Your task to perform on an android device: Search for "beats solo 3" on ebay, select the first entry, add it to the cart, then select checkout. Image 0: 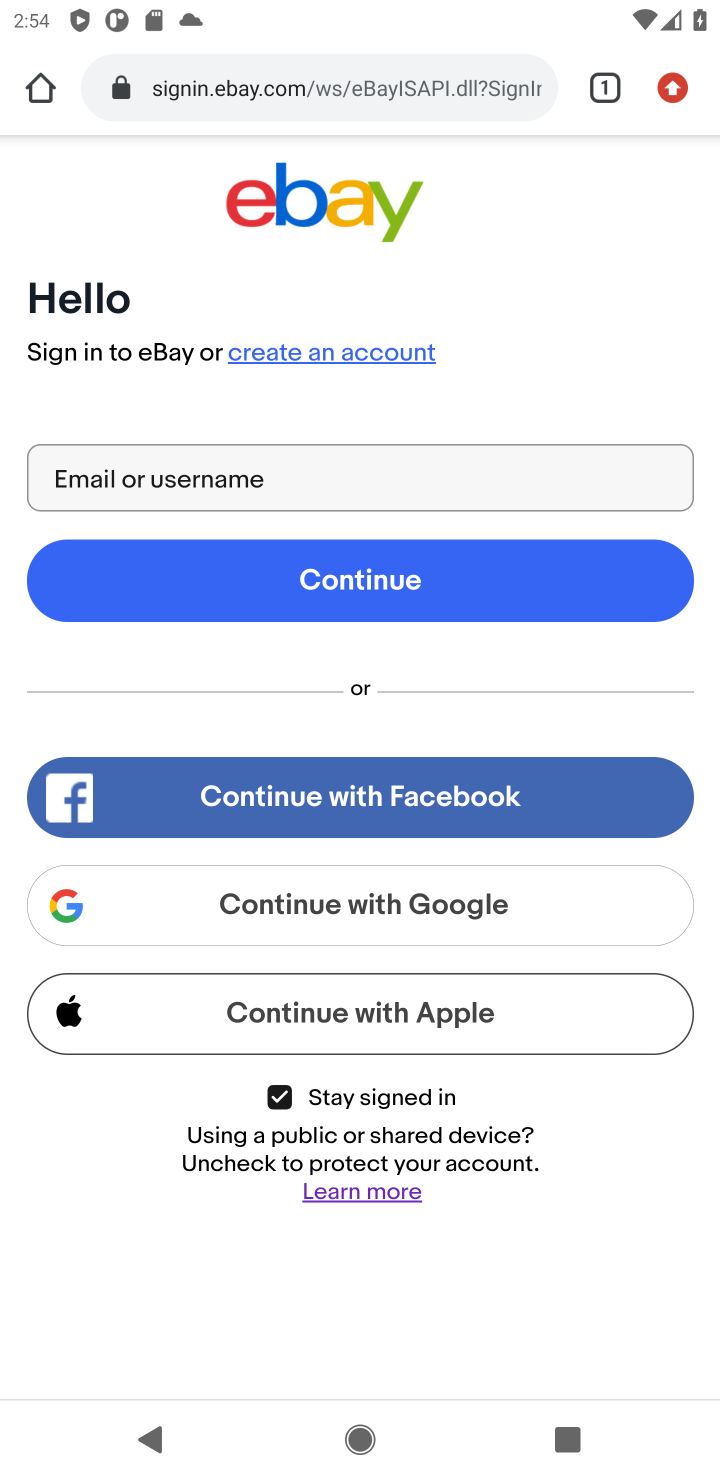
Step 0: press back button
Your task to perform on an android device: Search for "beats solo 3" on ebay, select the first entry, add it to the cart, then select checkout. Image 1: 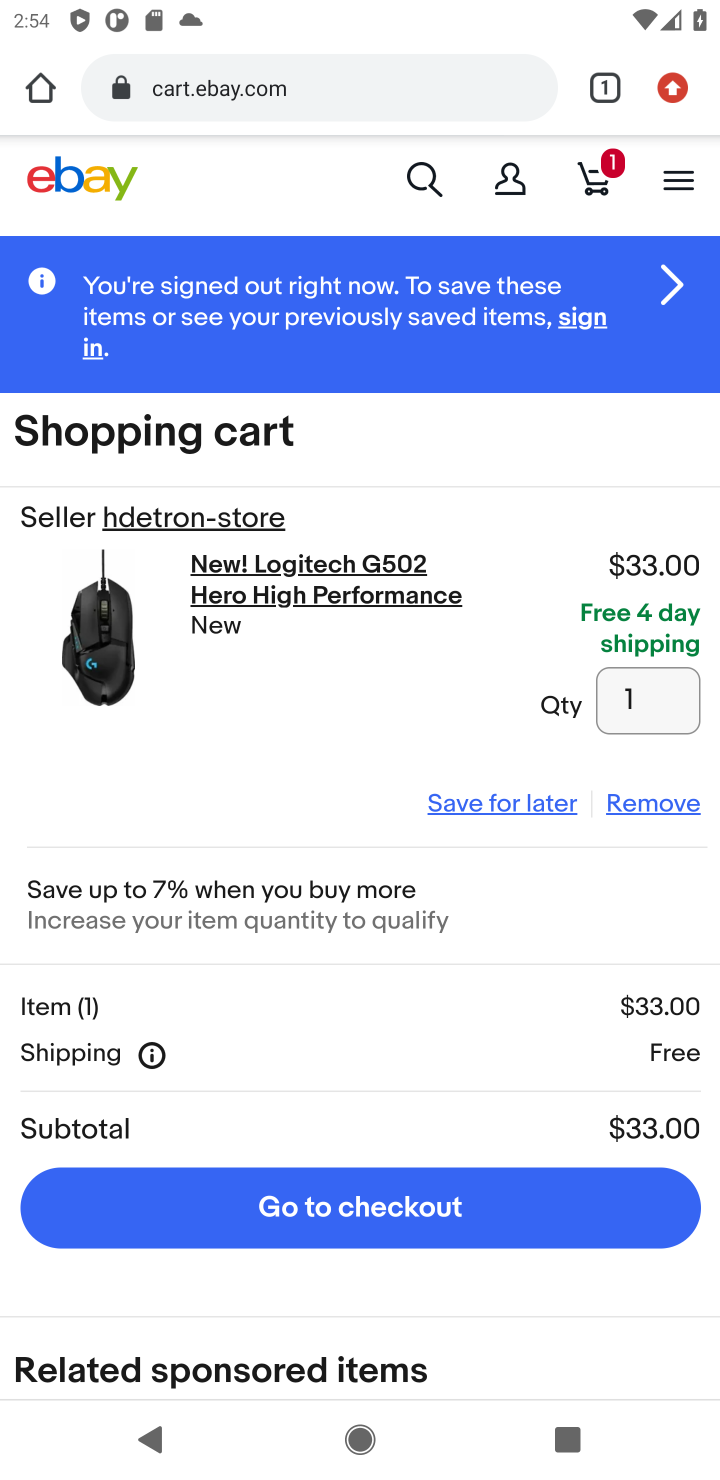
Step 1: click (428, 191)
Your task to perform on an android device: Search for "beats solo 3" on ebay, select the first entry, add it to the cart, then select checkout. Image 2: 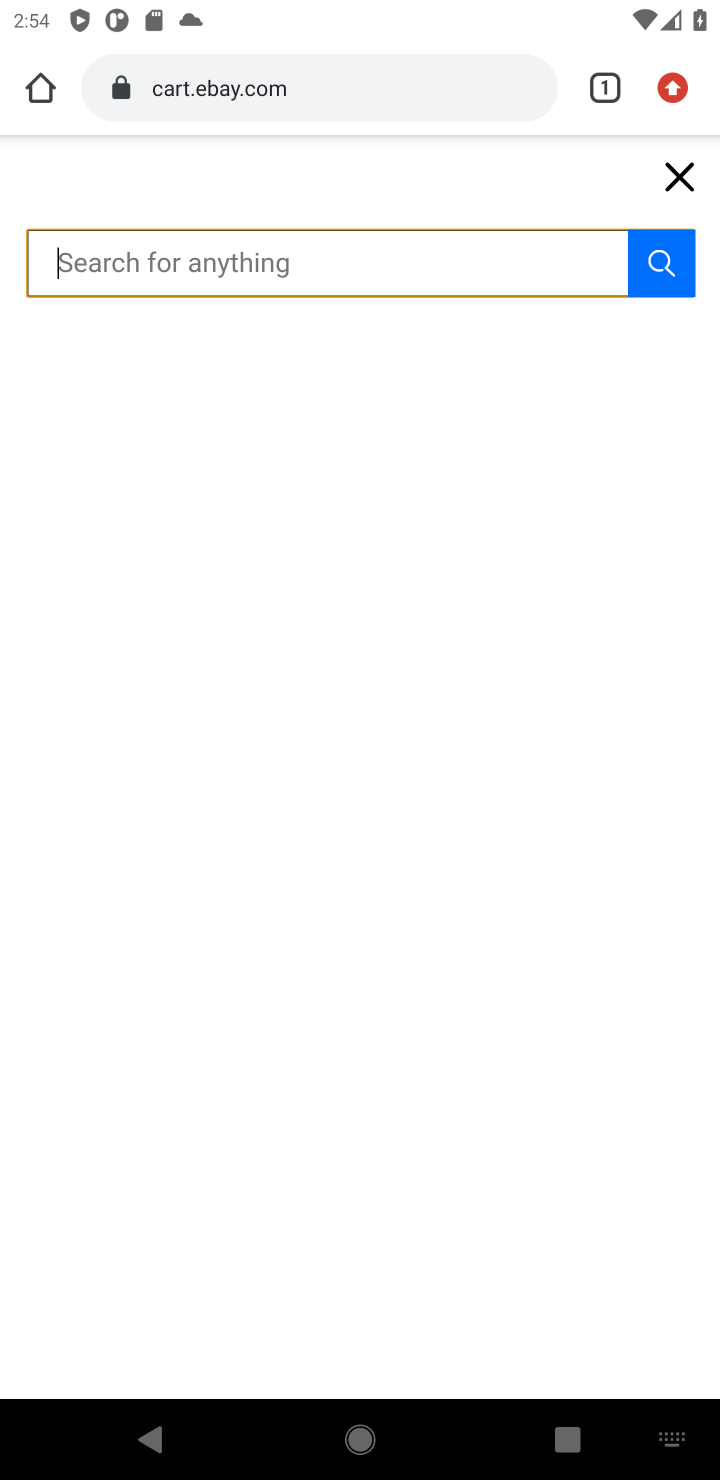
Step 2: type "beats solo 3"
Your task to perform on an android device: Search for "beats solo 3" on ebay, select the first entry, add it to the cart, then select checkout. Image 3: 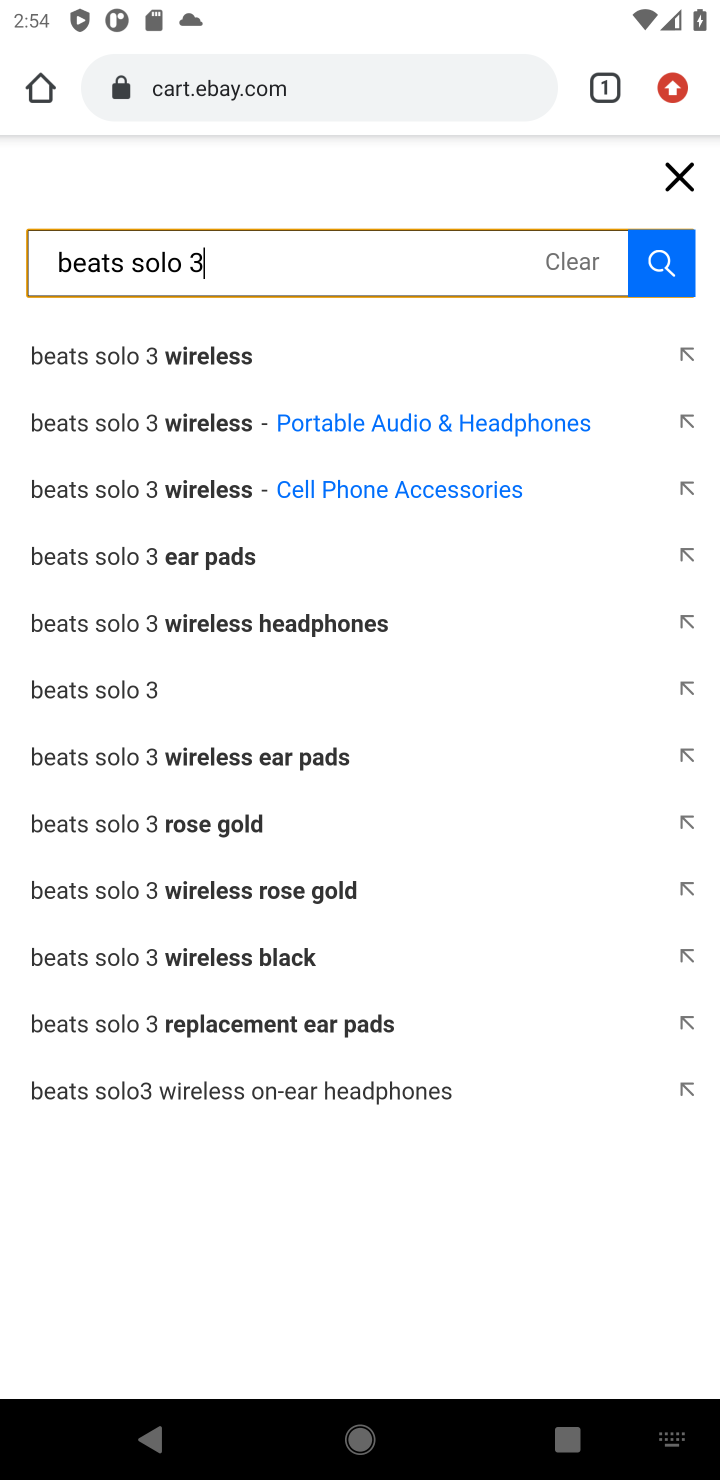
Step 3: click (658, 284)
Your task to perform on an android device: Search for "beats solo 3" on ebay, select the first entry, add it to the cart, then select checkout. Image 4: 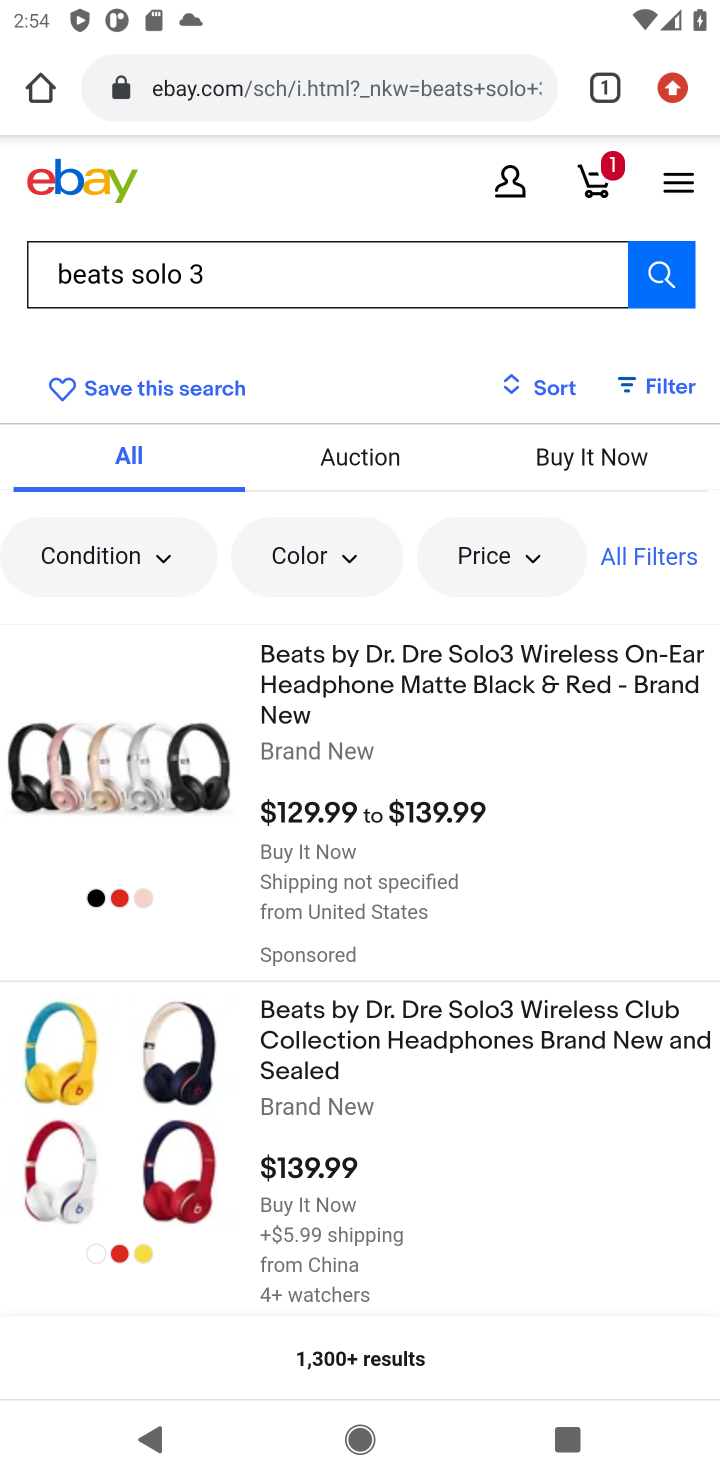
Step 4: click (408, 716)
Your task to perform on an android device: Search for "beats solo 3" on ebay, select the first entry, add it to the cart, then select checkout. Image 5: 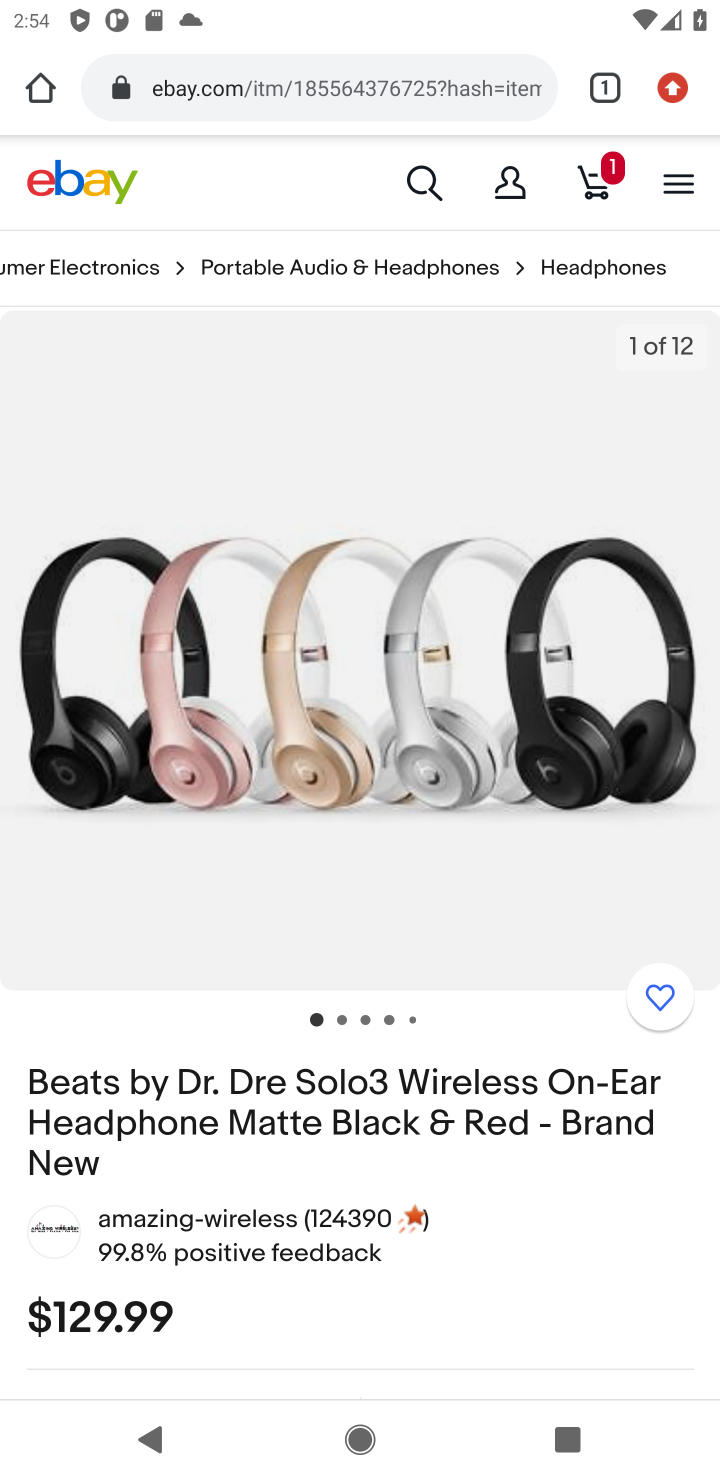
Step 5: drag from (521, 1251) to (617, 634)
Your task to perform on an android device: Search for "beats solo 3" on ebay, select the first entry, add it to the cart, then select checkout. Image 6: 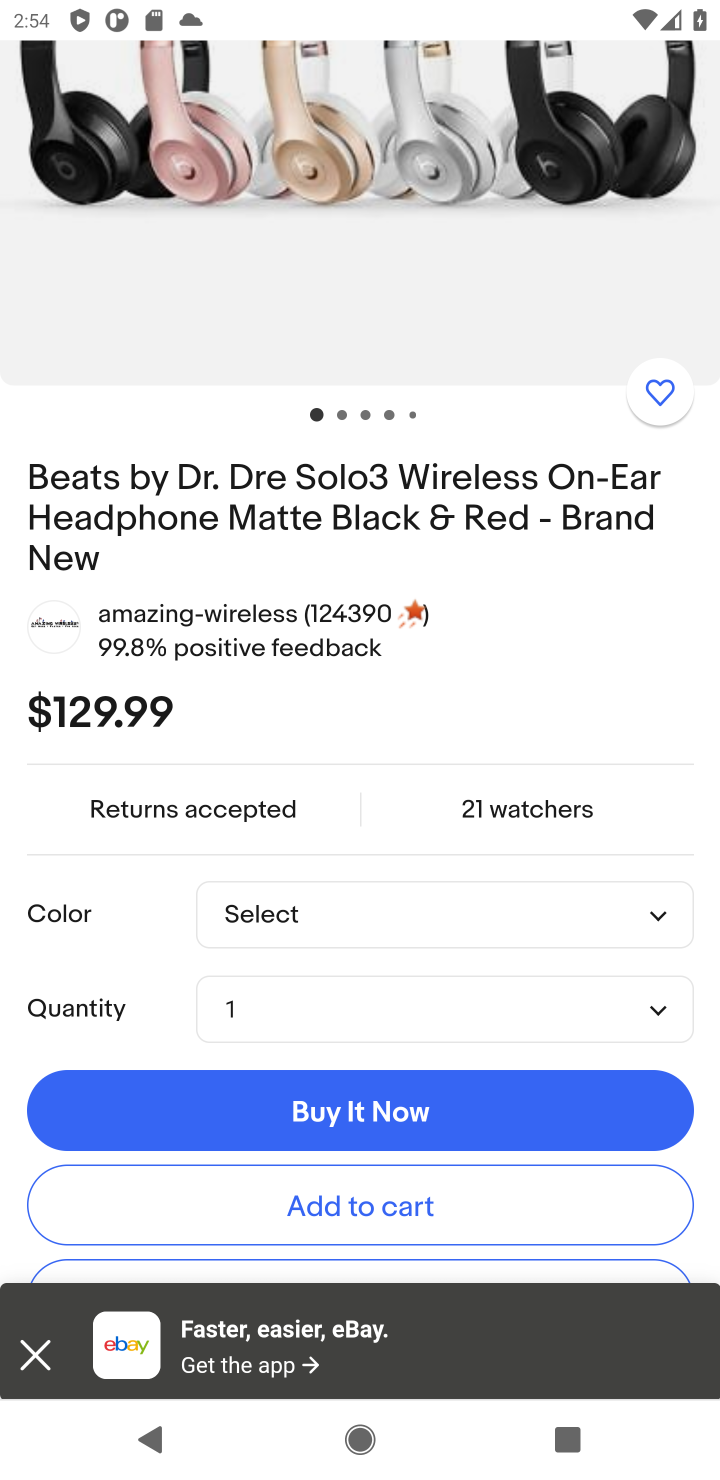
Step 6: click (392, 1221)
Your task to perform on an android device: Search for "beats solo 3" on ebay, select the first entry, add it to the cart, then select checkout. Image 7: 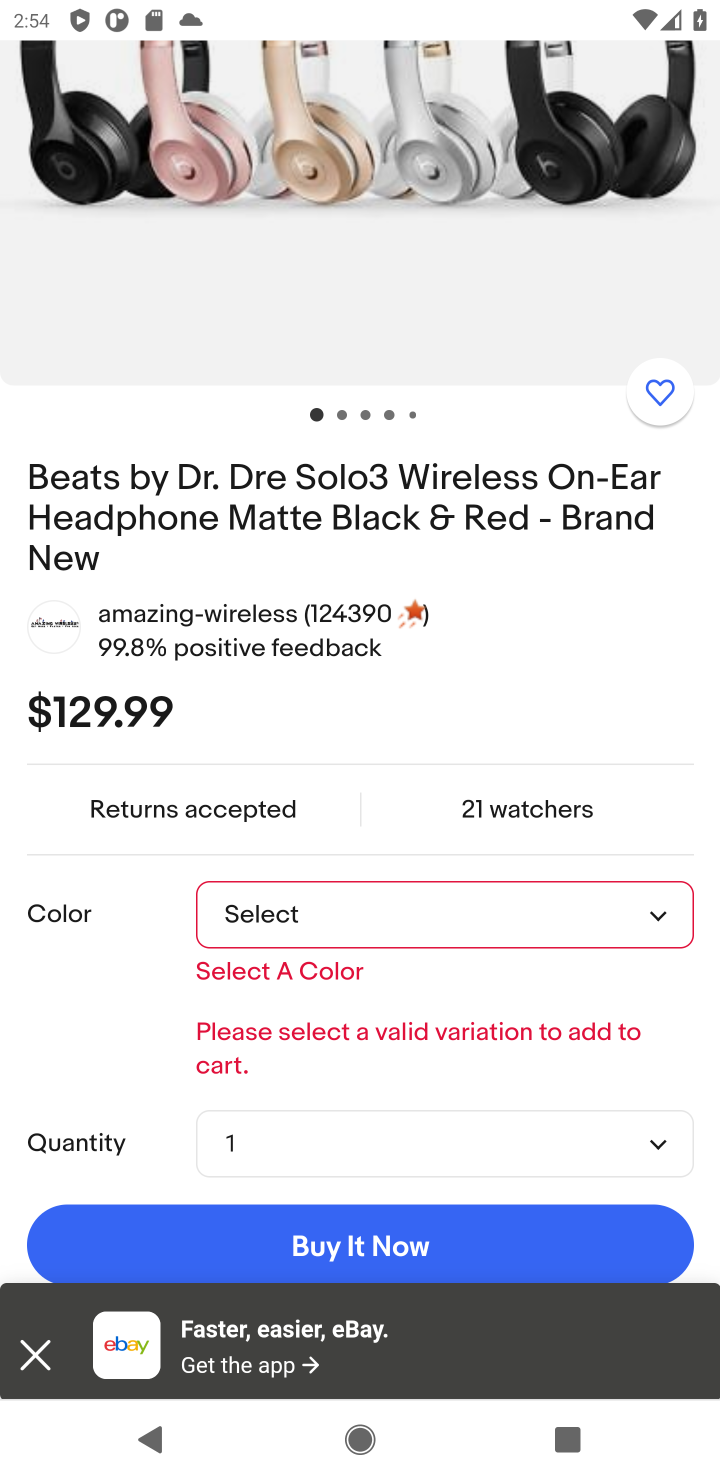
Step 7: click (569, 908)
Your task to perform on an android device: Search for "beats solo 3" on ebay, select the first entry, add it to the cart, then select checkout. Image 8: 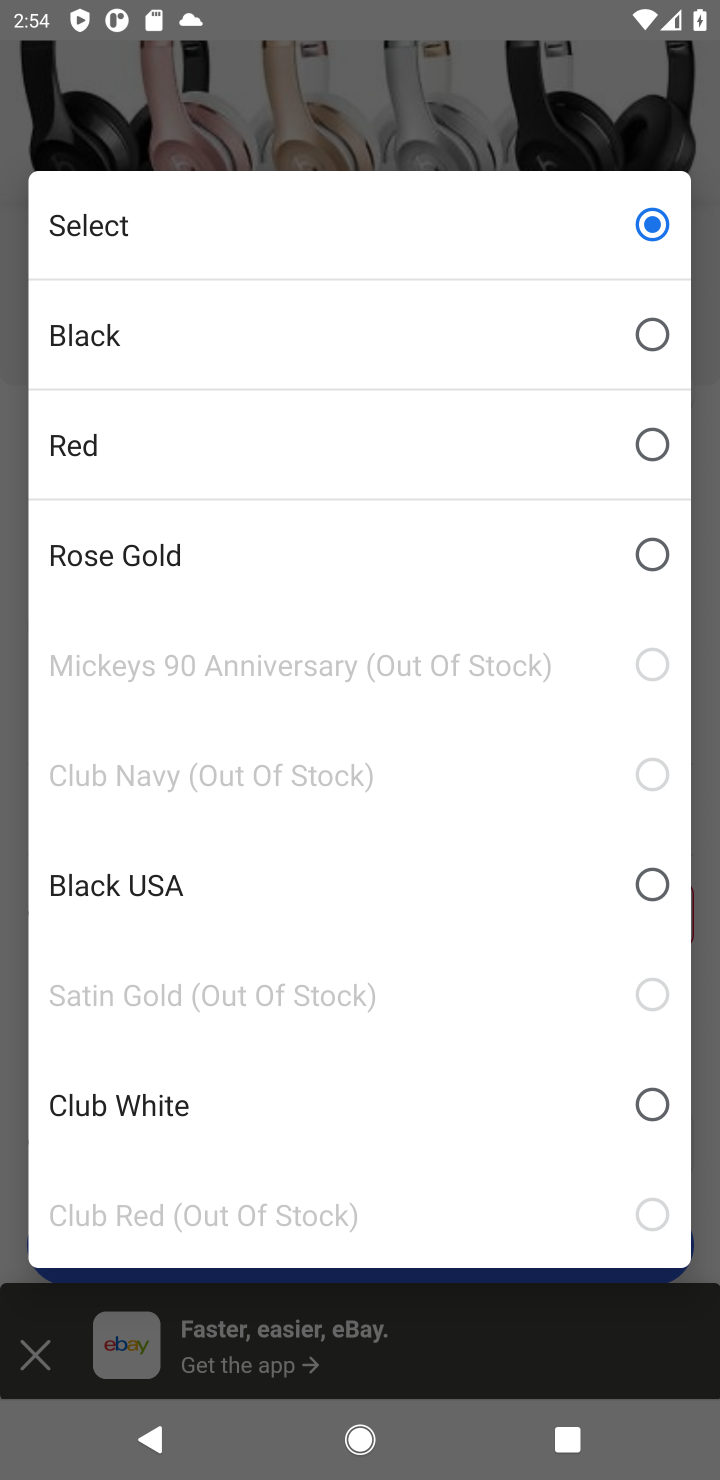
Step 8: click (569, 908)
Your task to perform on an android device: Search for "beats solo 3" on ebay, select the first entry, add it to the cart, then select checkout. Image 9: 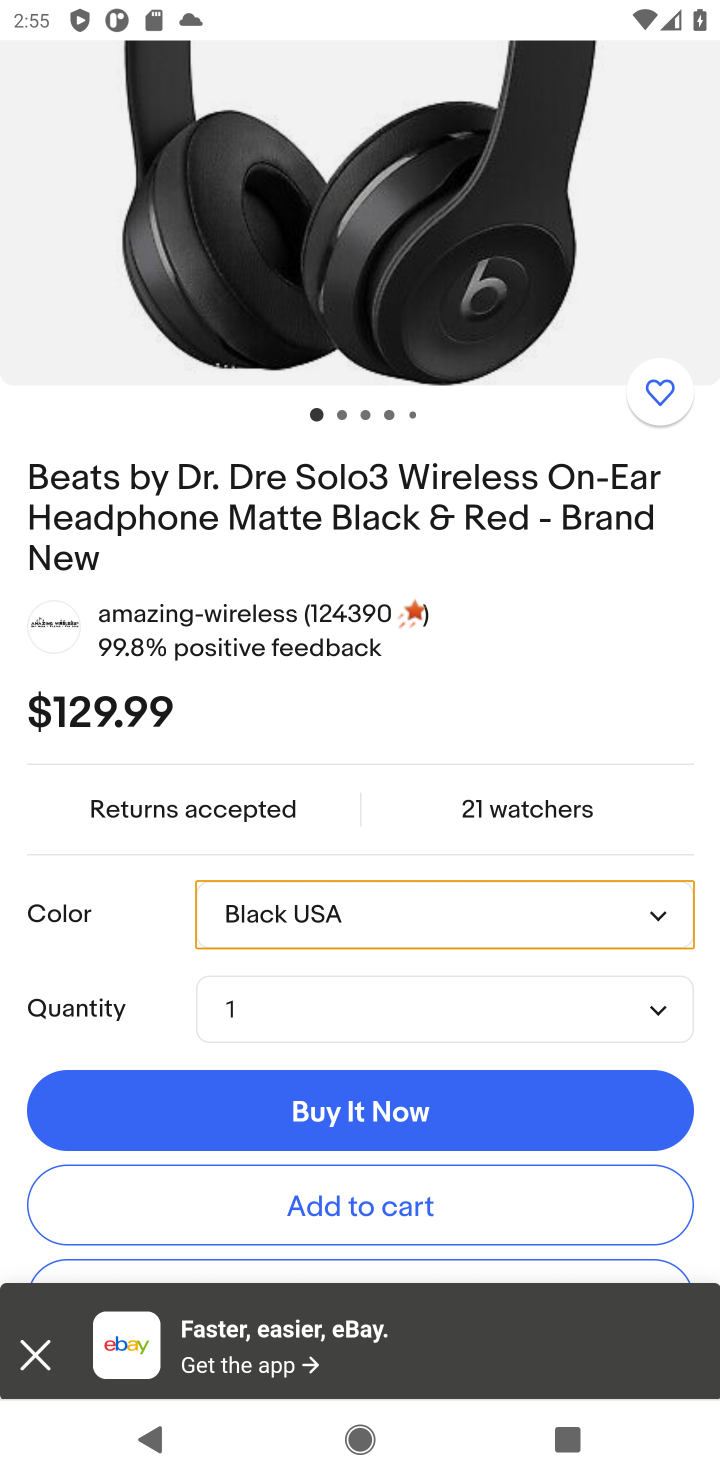
Step 9: click (259, 1208)
Your task to perform on an android device: Search for "beats solo 3" on ebay, select the first entry, add it to the cart, then select checkout. Image 10: 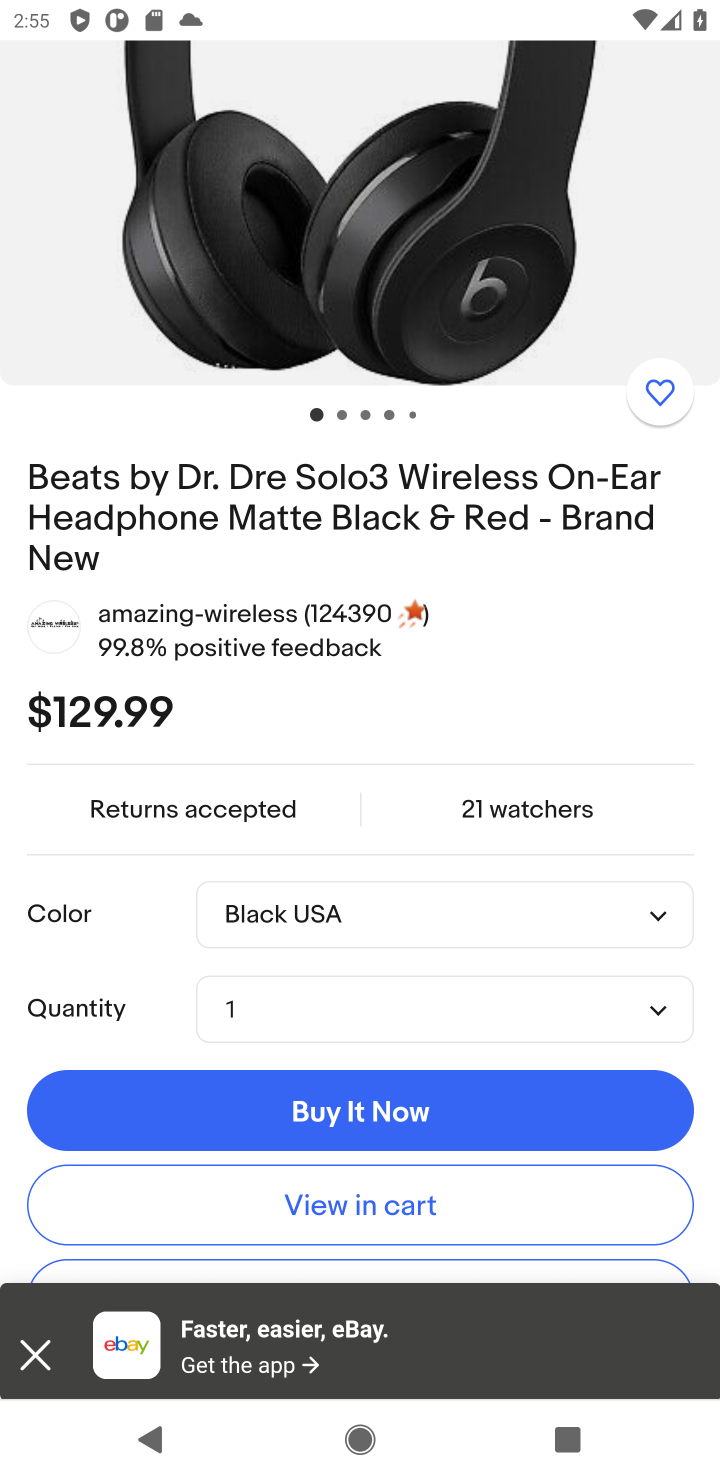
Step 10: click (259, 1208)
Your task to perform on an android device: Search for "beats solo 3" on ebay, select the first entry, add it to the cart, then select checkout. Image 11: 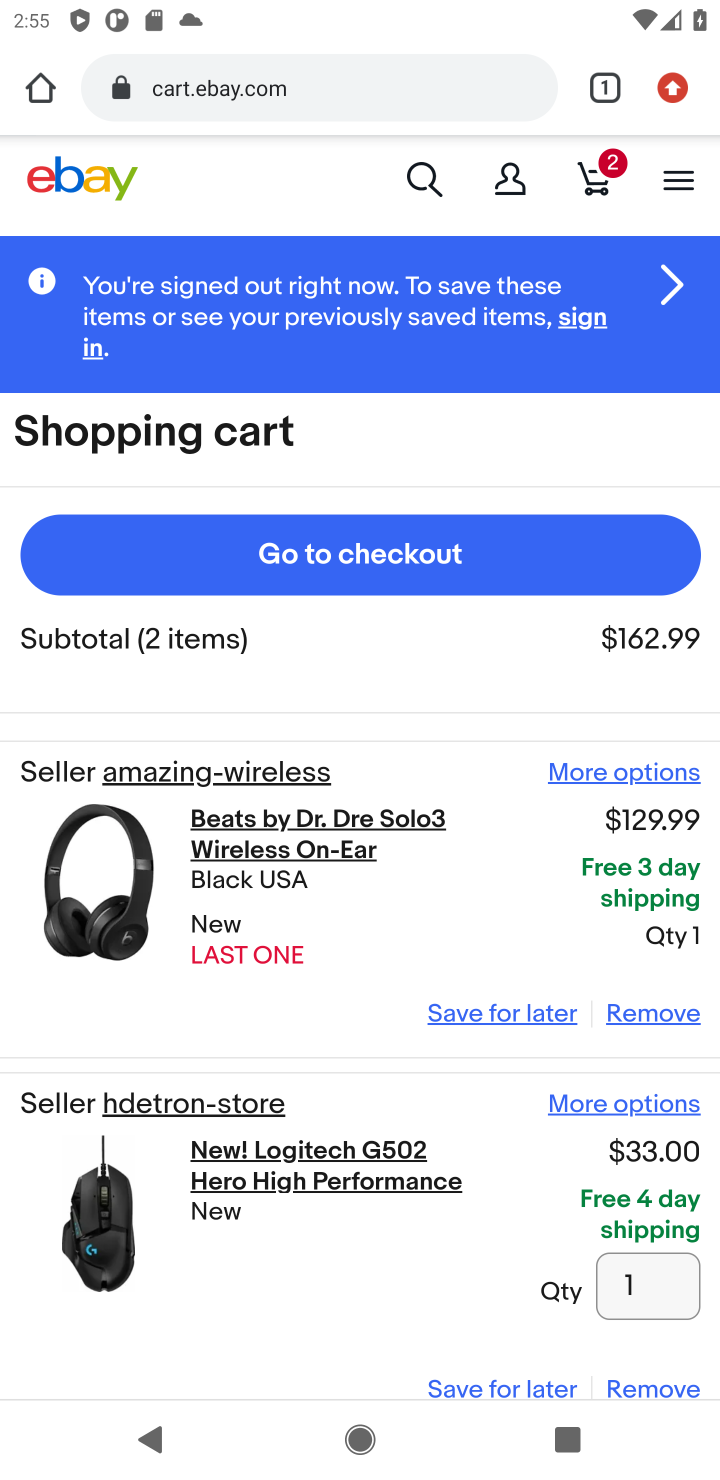
Step 11: click (404, 577)
Your task to perform on an android device: Search for "beats solo 3" on ebay, select the first entry, add it to the cart, then select checkout. Image 12: 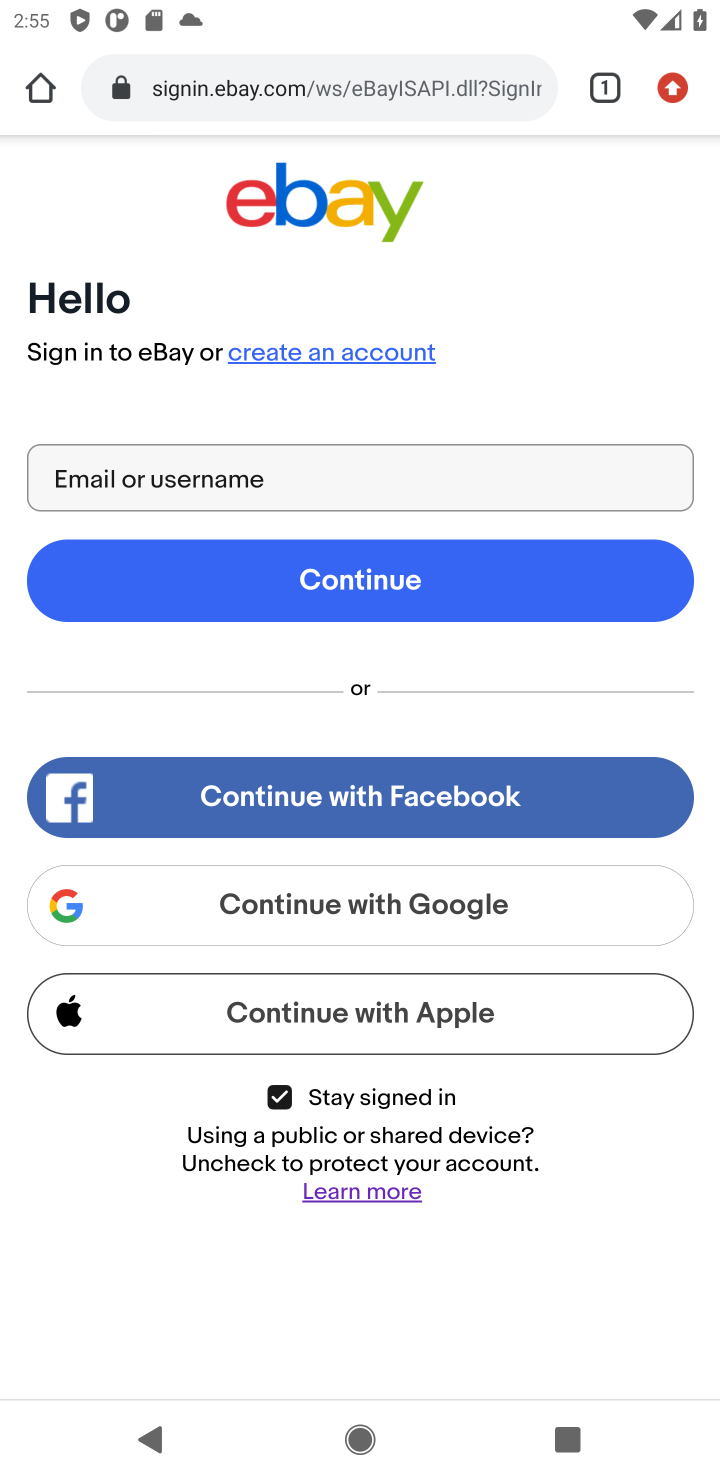
Step 12: task complete